Your task to perform on an android device: add a contact Image 0: 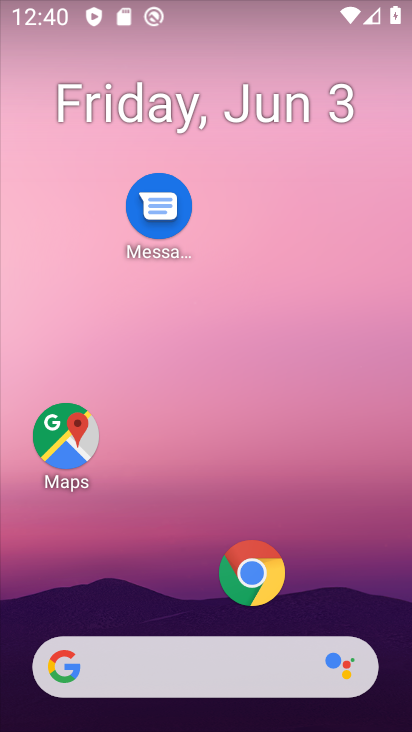
Step 0: drag from (146, 729) to (194, 178)
Your task to perform on an android device: add a contact Image 1: 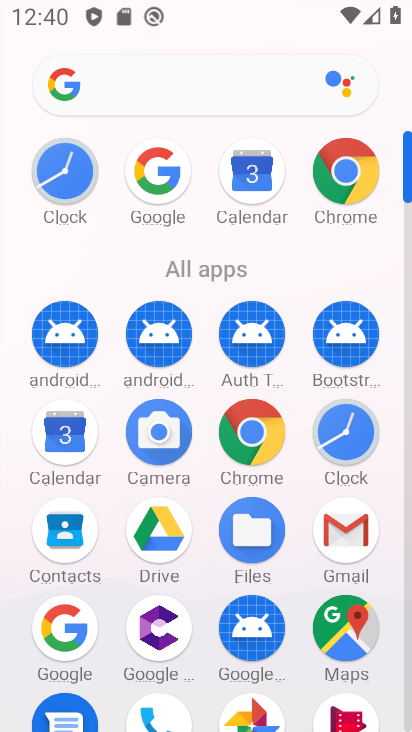
Step 1: drag from (110, 661) to (72, 260)
Your task to perform on an android device: add a contact Image 2: 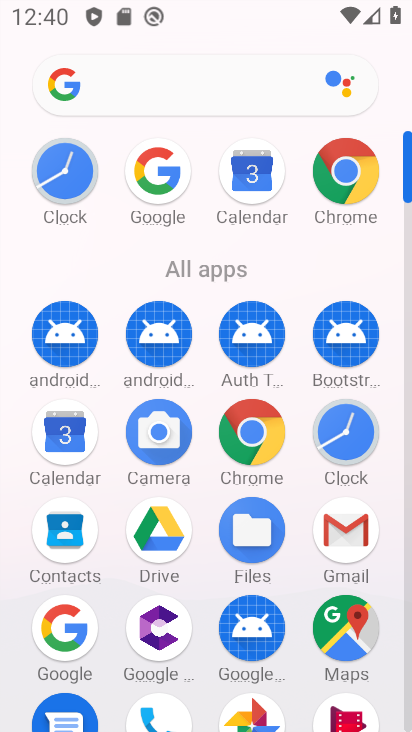
Step 2: click (106, 260)
Your task to perform on an android device: add a contact Image 3: 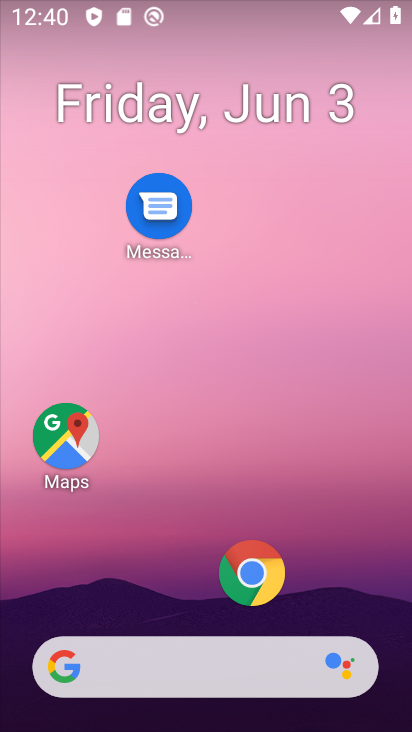
Step 3: drag from (126, 731) to (172, 145)
Your task to perform on an android device: add a contact Image 4: 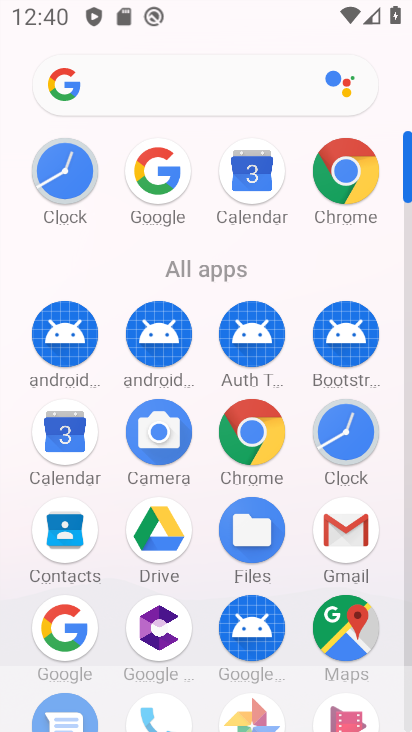
Step 4: click (65, 556)
Your task to perform on an android device: add a contact Image 5: 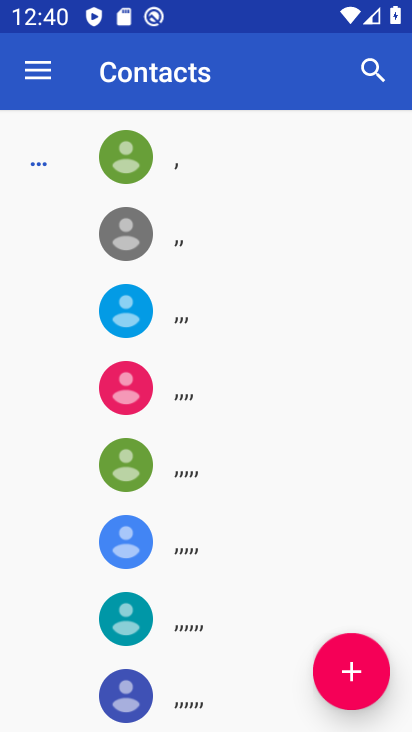
Step 5: click (332, 685)
Your task to perform on an android device: add a contact Image 6: 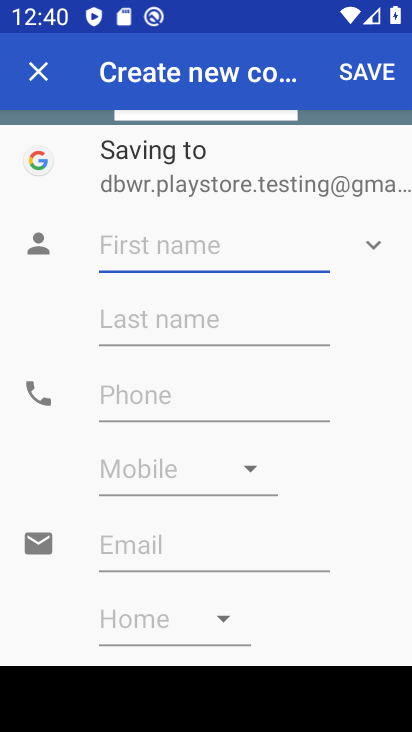
Step 6: type "hgjhajs"
Your task to perform on an android device: add a contact Image 7: 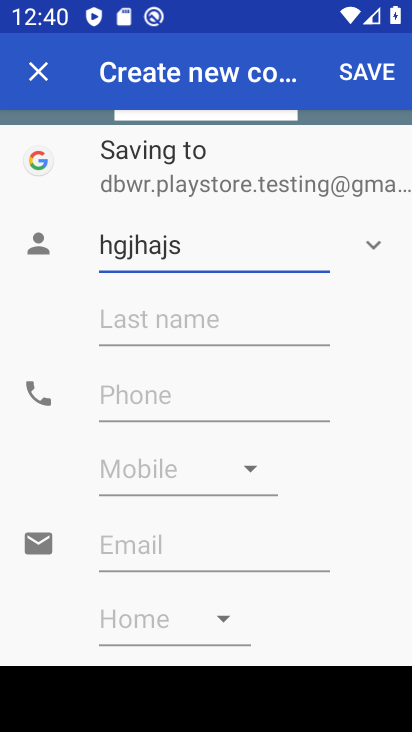
Step 7: click (202, 402)
Your task to perform on an android device: add a contact Image 8: 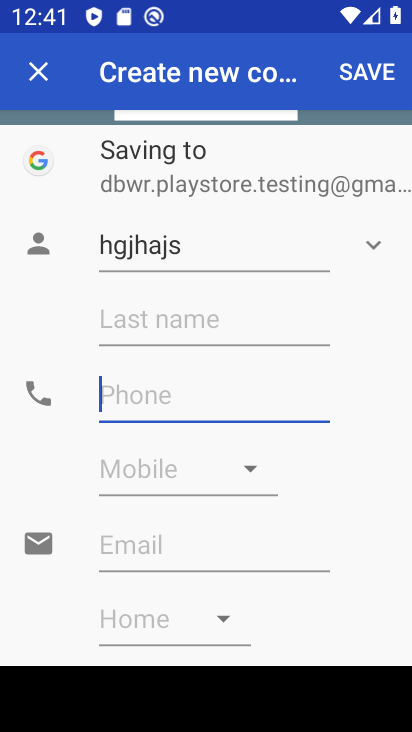
Step 8: type "9162424252"
Your task to perform on an android device: add a contact Image 9: 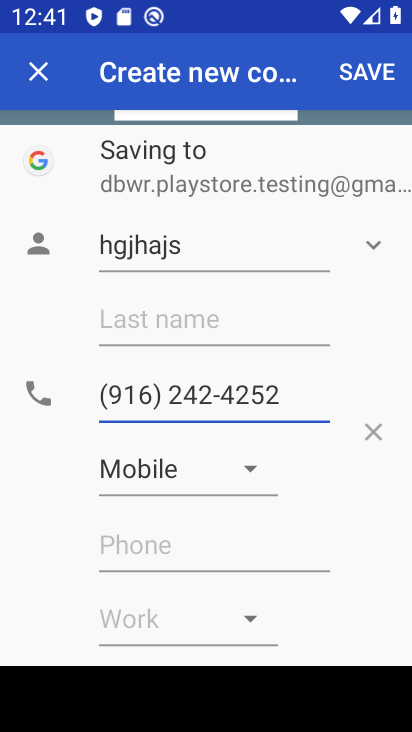
Step 9: click (365, 90)
Your task to perform on an android device: add a contact Image 10: 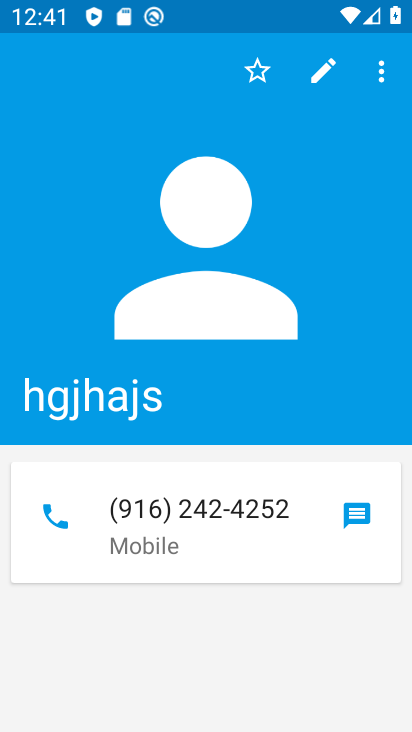
Step 10: task complete